Your task to perform on an android device: open chrome privacy settings Image 0: 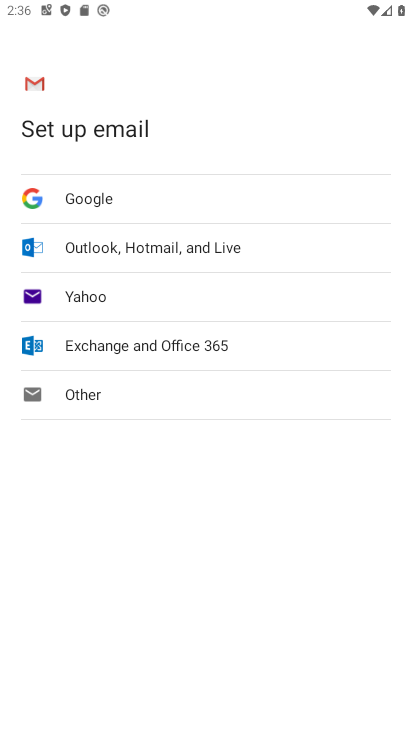
Step 0: press home button
Your task to perform on an android device: open chrome privacy settings Image 1: 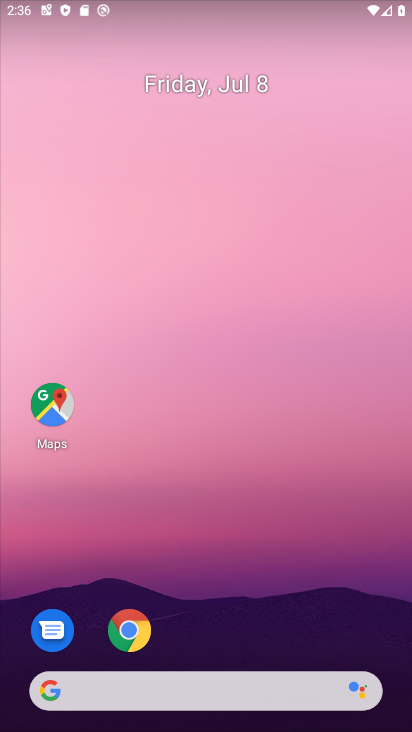
Step 1: drag from (274, 589) to (240, 317)
Your task to perform on an android device: open chrome privacy settings Image 2: 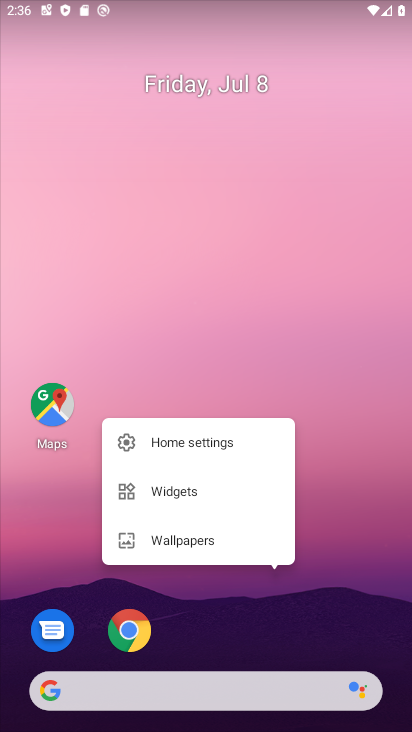
Step 2: click (240, 317)
Your task to perform on an android device: open chrome privacy settings Image 3: 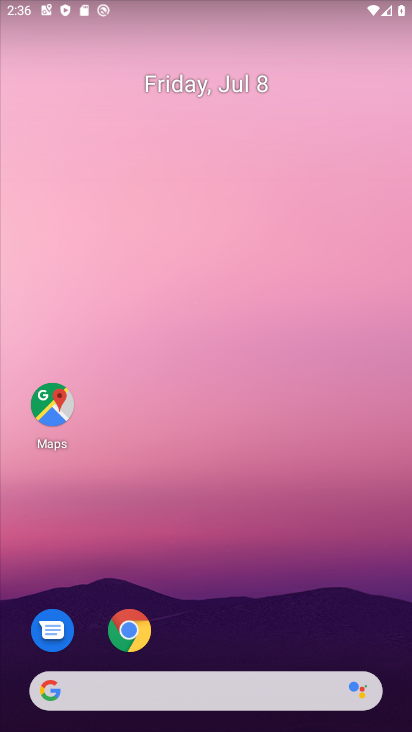
Step 3: click (127, 624)
Your task to perform on an android device: open chrome privacy settings Image 4: 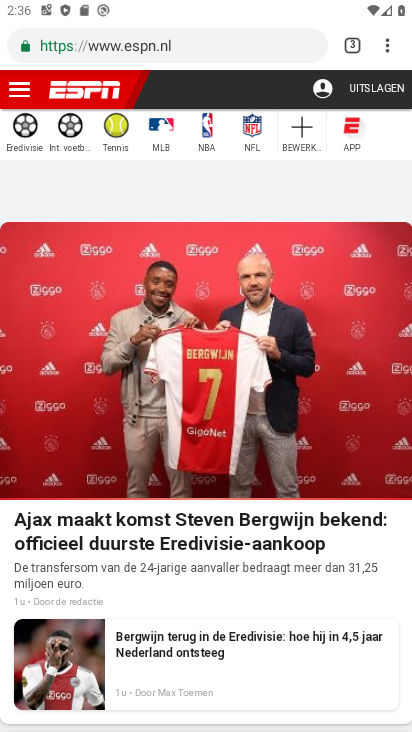
Step 4: click (386, 51)
Your task to perform on an android device: open chrome privacy settings Image 5: 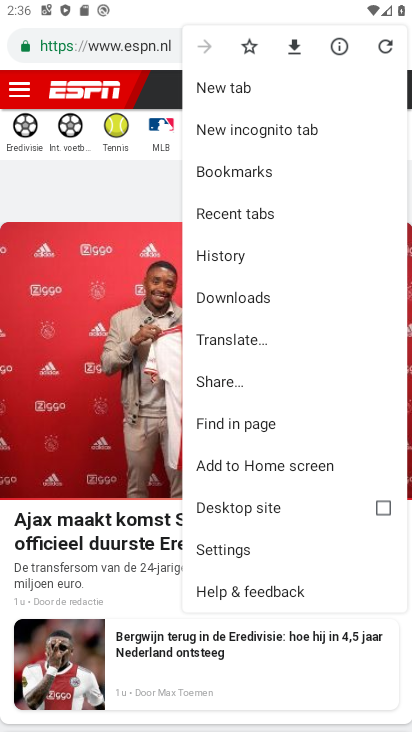
Step 5: click (273, 534)
Your task to perform on an android device: open chrome privacy settings Image 6: 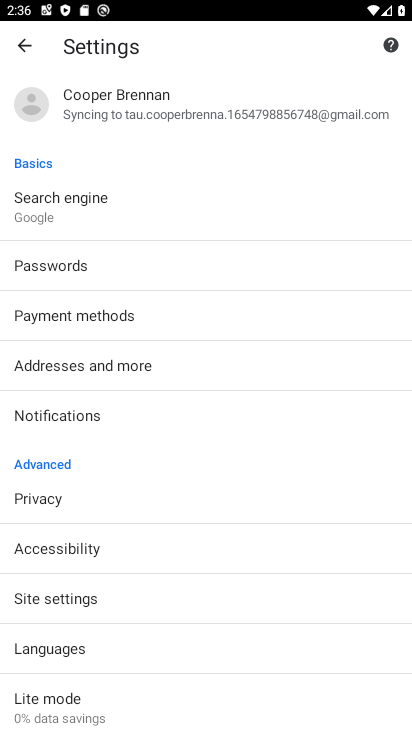
Step 6: click (72, 492)
Your task to perform on an android device: open chrome privacy settings Image 7: 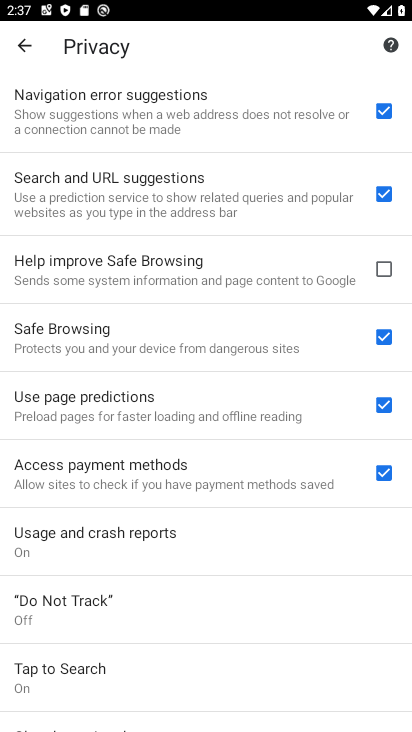
Step 7: task complete